Your task to perform on an android device: Go to settings Image 0: 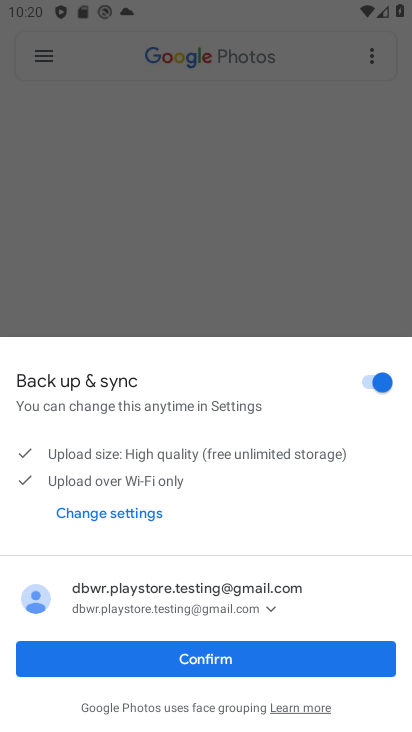
Step 0: press home button
Your task to perform on an android device: Go to settings Image 1: 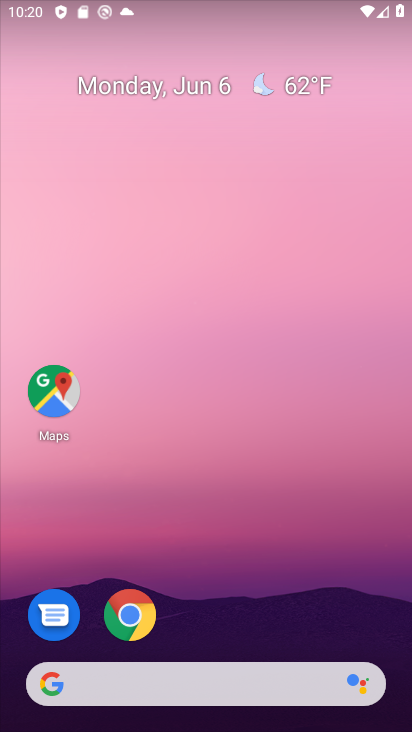
Step 1: drag from (225, 686) to (263, 547)
Your task to perform on an android device: Go to settings Image 2: 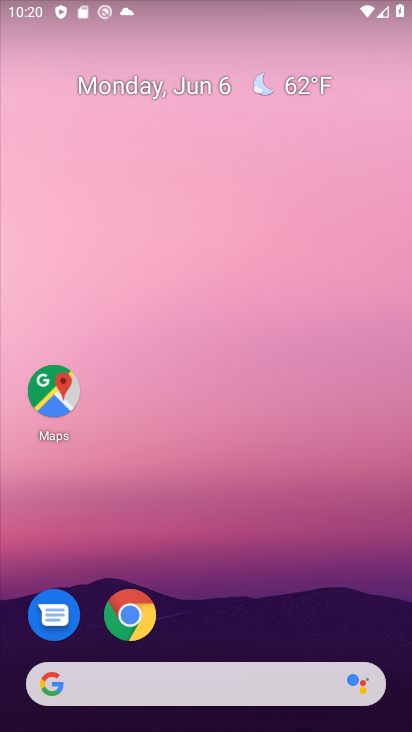
Step 2: drag from (200, 666) to (229, 243)
Your task to perform on an android device: Go to settings Image 3: 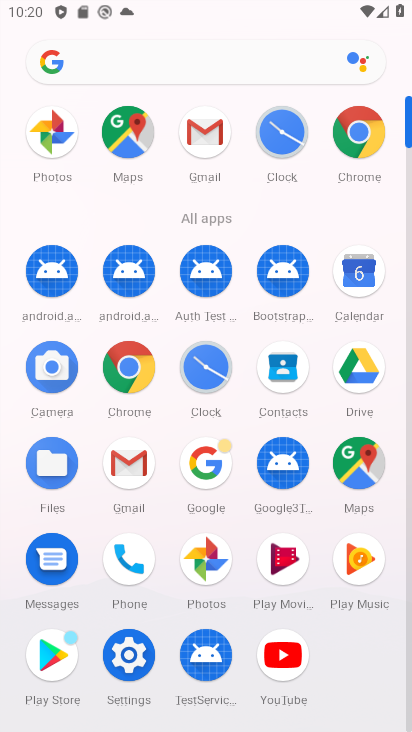
Step 3: click (132, 648)
Your task to perform on an android device: Go to settings Image 4: 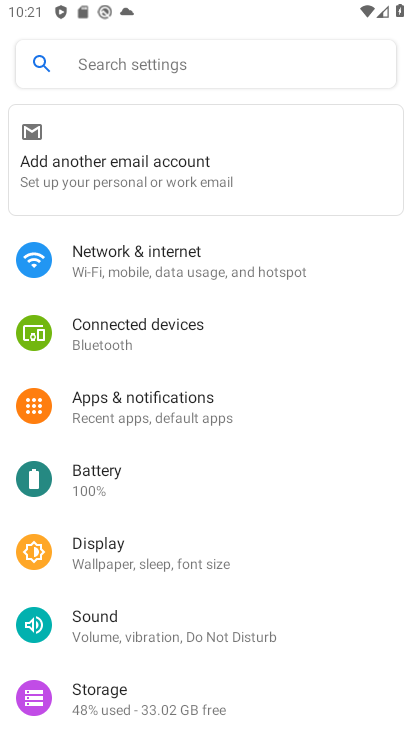
Step 4: task complete